Your task to perform on an android device: Open the stopwatch Image 0: 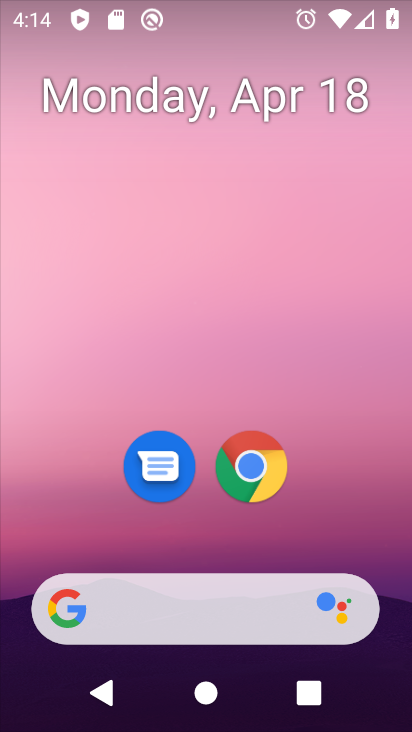
Step 0: drag from (346, 500) to (291, 13)
Your task to perform on an android device: Open the stopwatch Image 1: 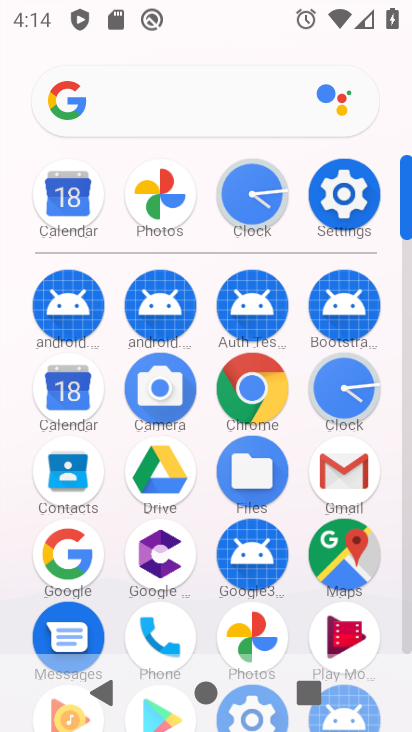
Step 1: click (343, 384)
Your task to perform on an android device: Open the stopwatch Image 2: 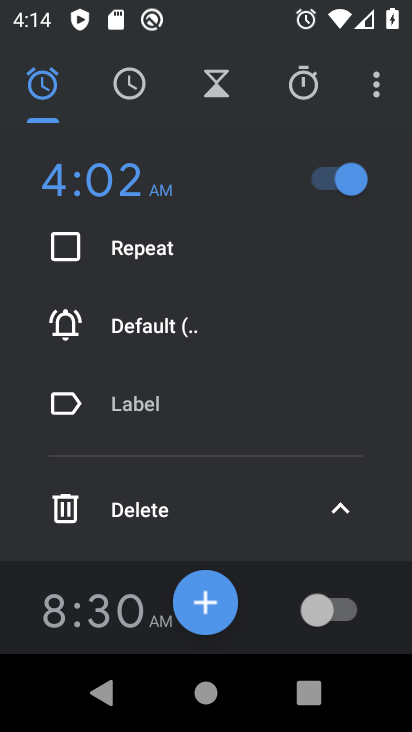
Step 2: click (296, 84)
Your task to perform on an android device: Open the stopwatch Image 3: 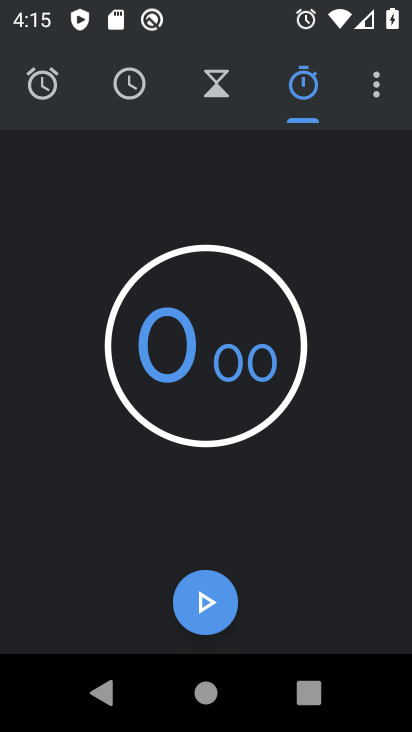
Step 3: task complete